Your task to perform on an android device: open app "Airtel Thanks" Image 0: 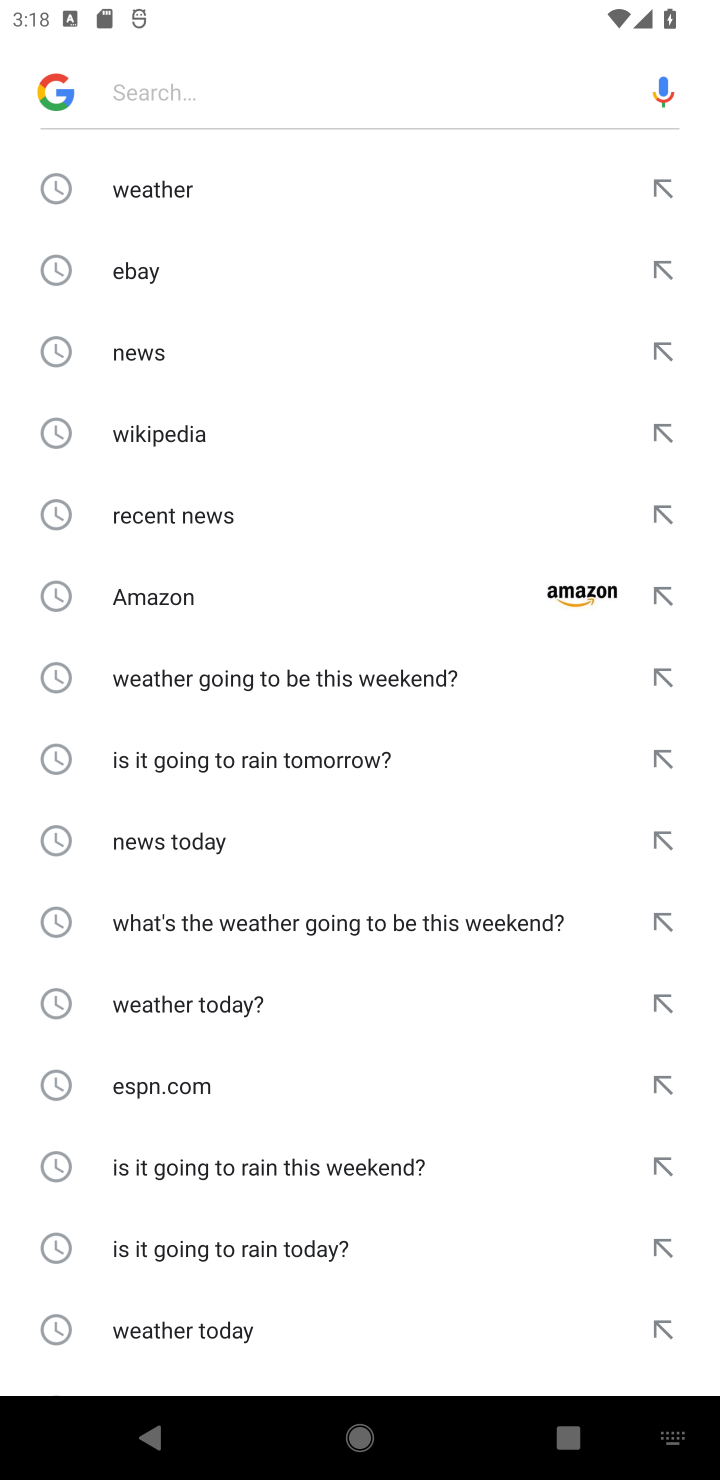
Step 0: press home button
Your task to perform on an android device: open app "Airtel Thanks" Image 1: 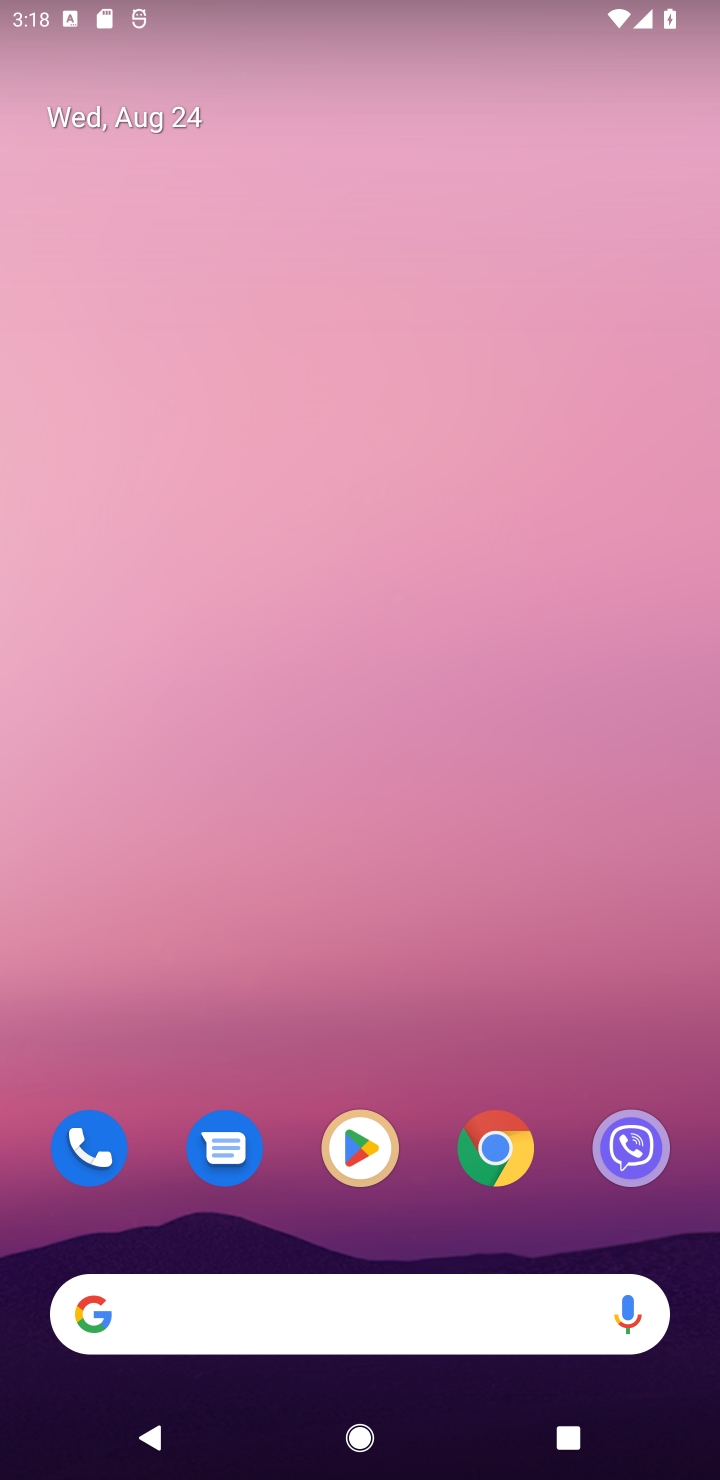
Step 1: click (343, 1126)
Your task to perform on an android device: open app "Airtel Thanks" Image 2: 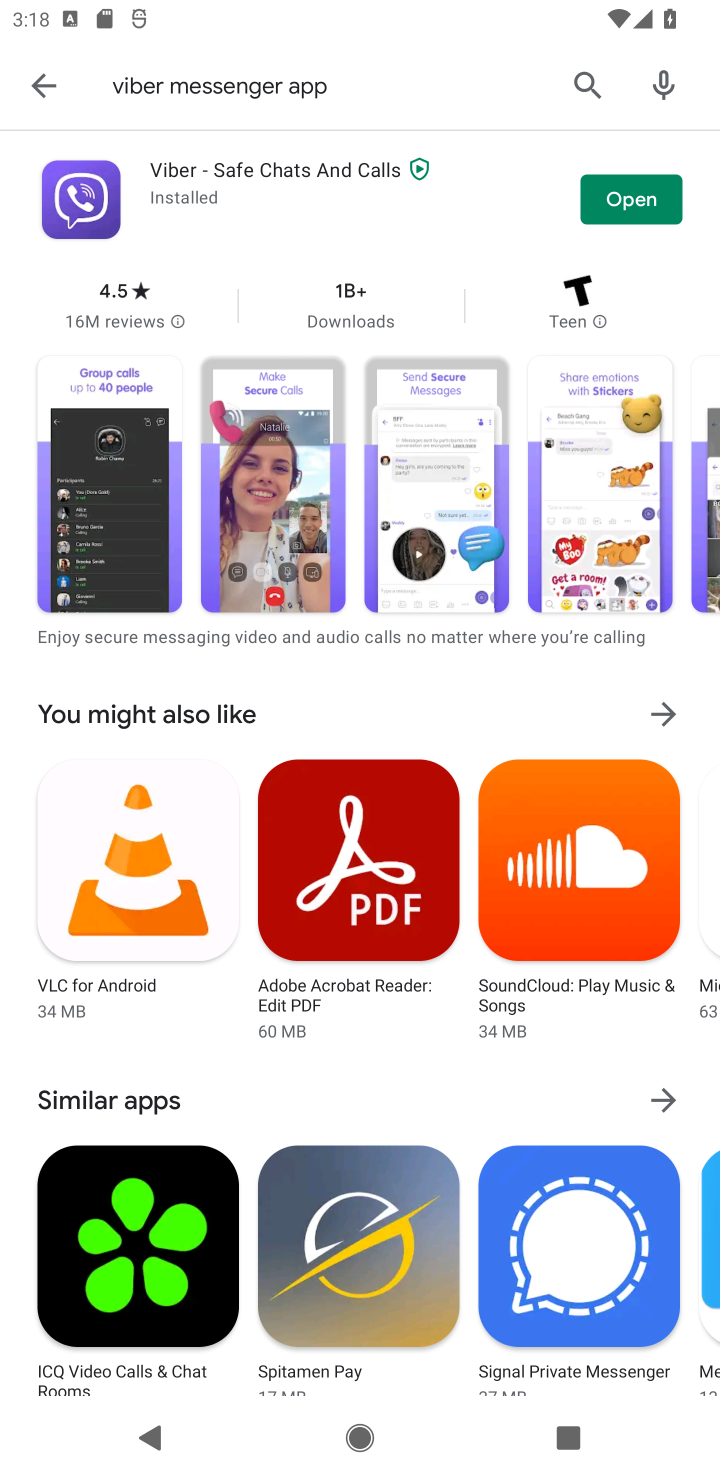
Step 2: click (42, 82)
Your task to perform on an android device: open app "Airtel Thanks" Image 3: 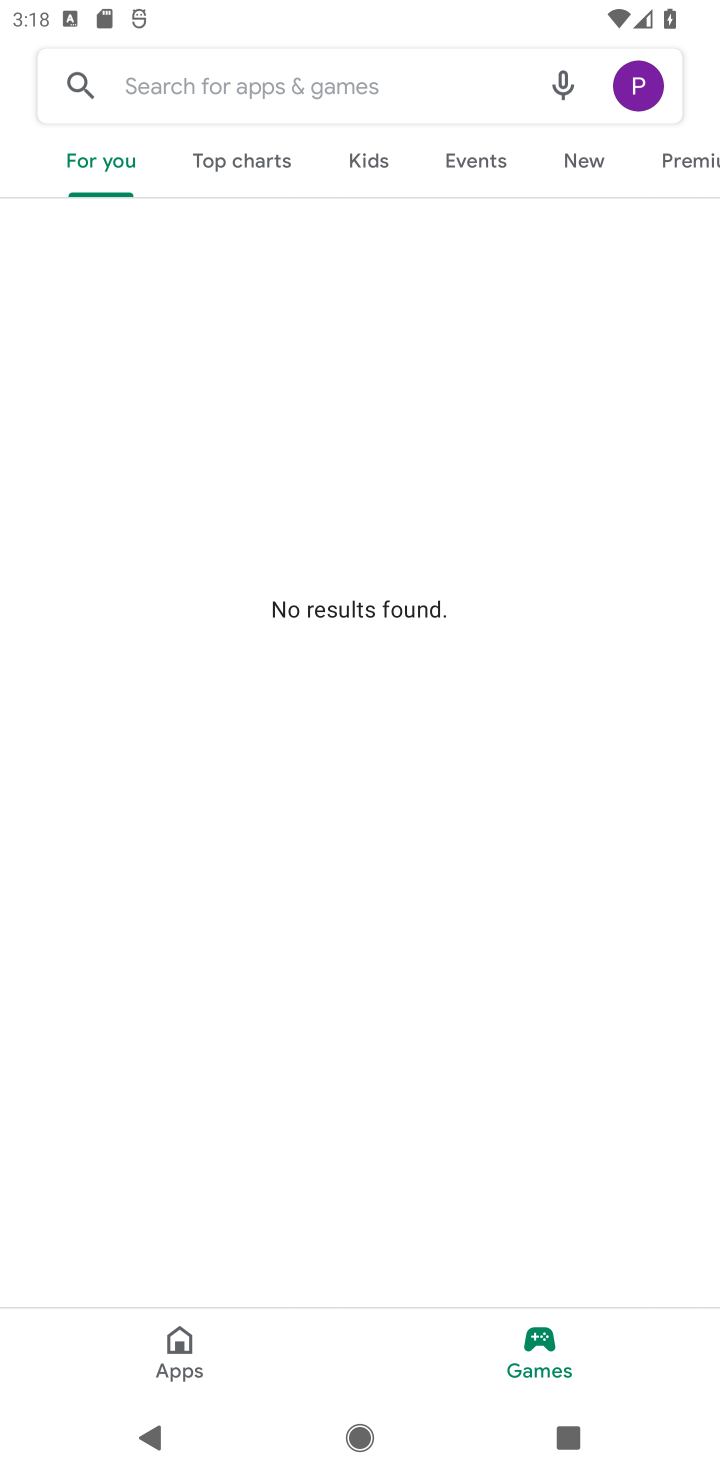
Step 3: click (281, 67)
Your task to perform on an android device: open app "Airtel Thanks" Image 4: 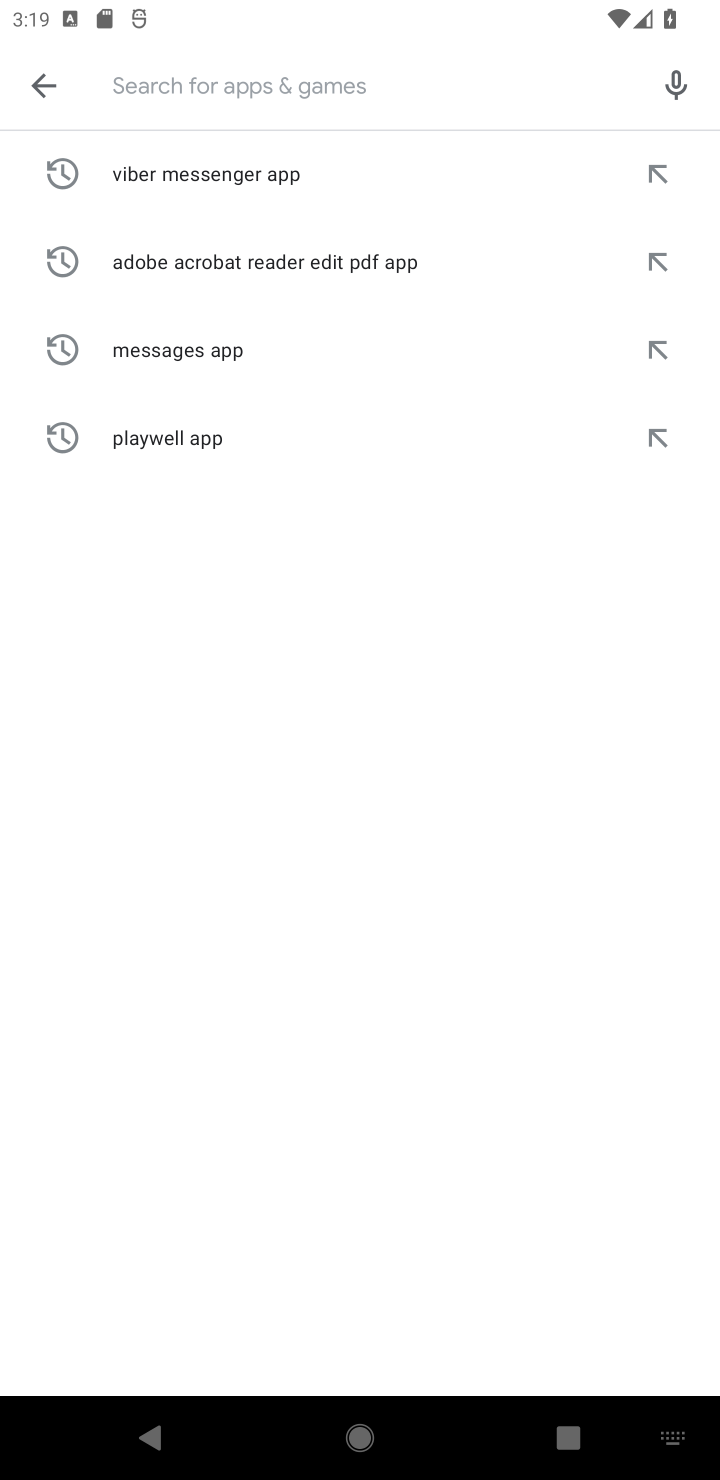
Step 4: type "Airtel Thanks "
Your task to perform on an android device: open app "Airtel Thanks" Image 5: 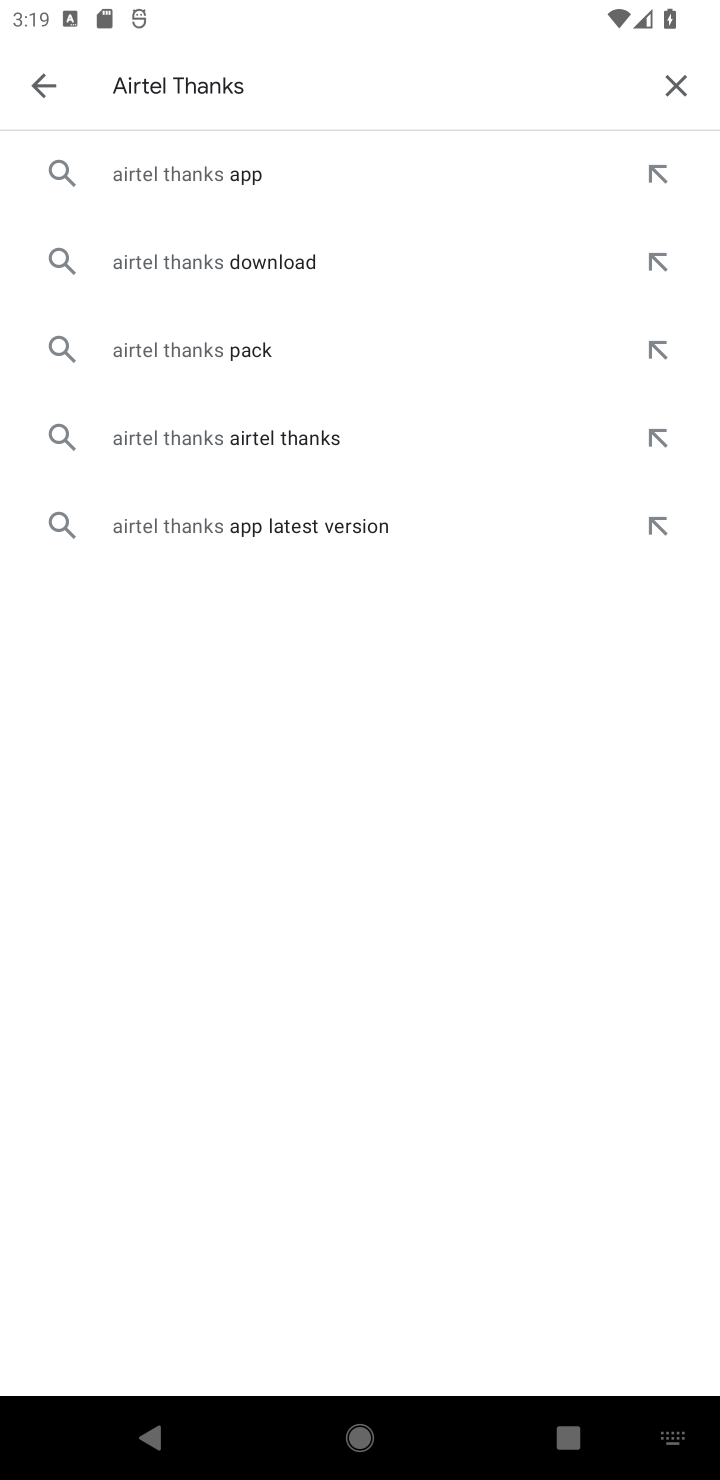
Step 5: click (183, 177)
Your task to perform on an android device: open app "Airtel Thanks" Image 6: 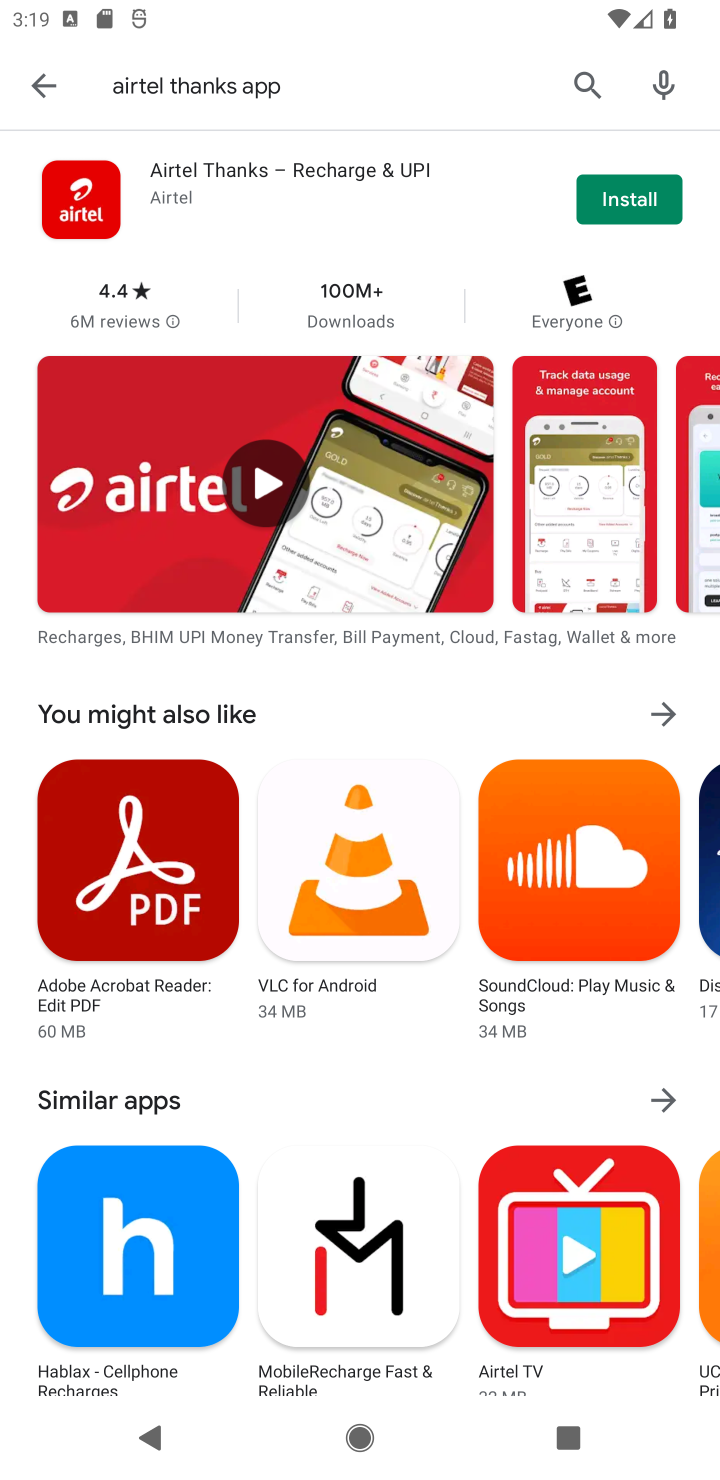
Step 6: click (635, 202)
Your task to perform on an android device: open app "Airtel Thanks" Image 7: 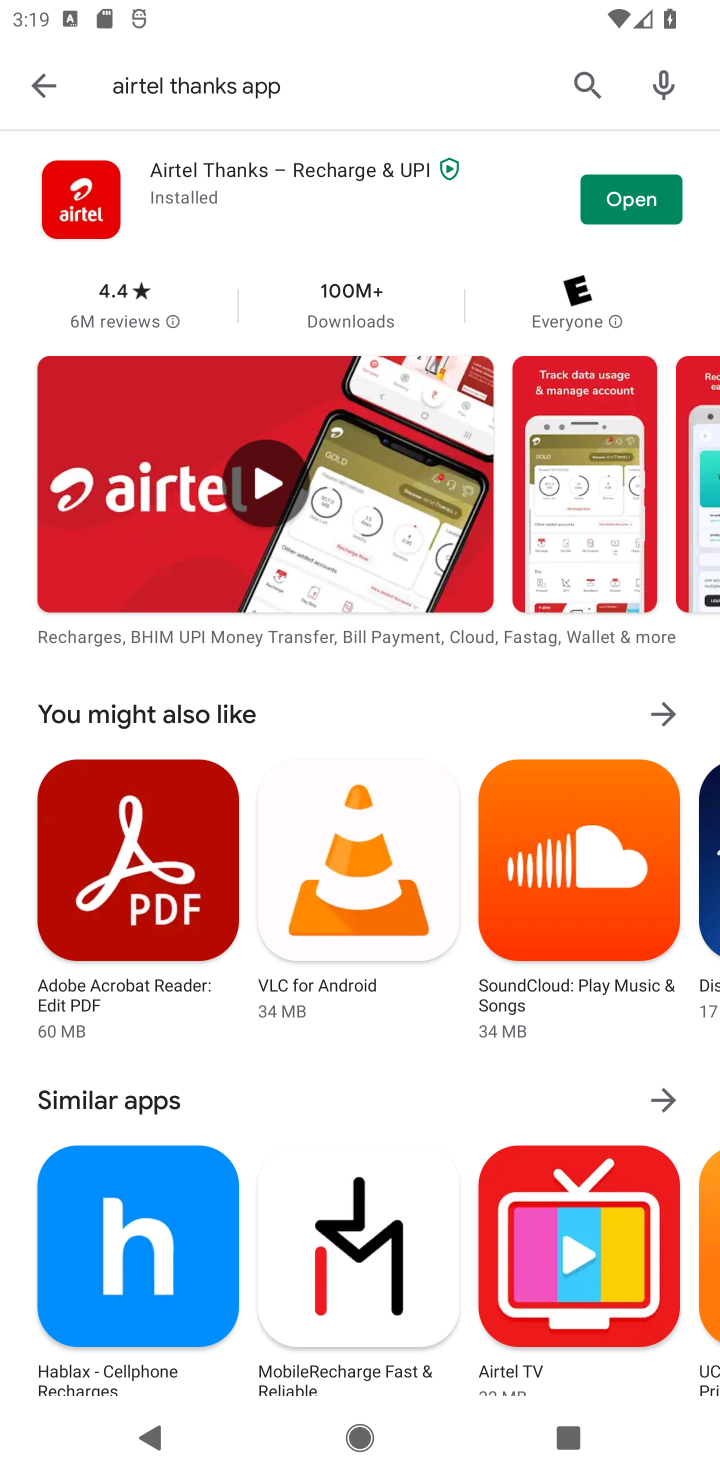
Step 7: click (613, 192)
Your task to perform on an android device: open app "Airtel Thanks" Image 8: 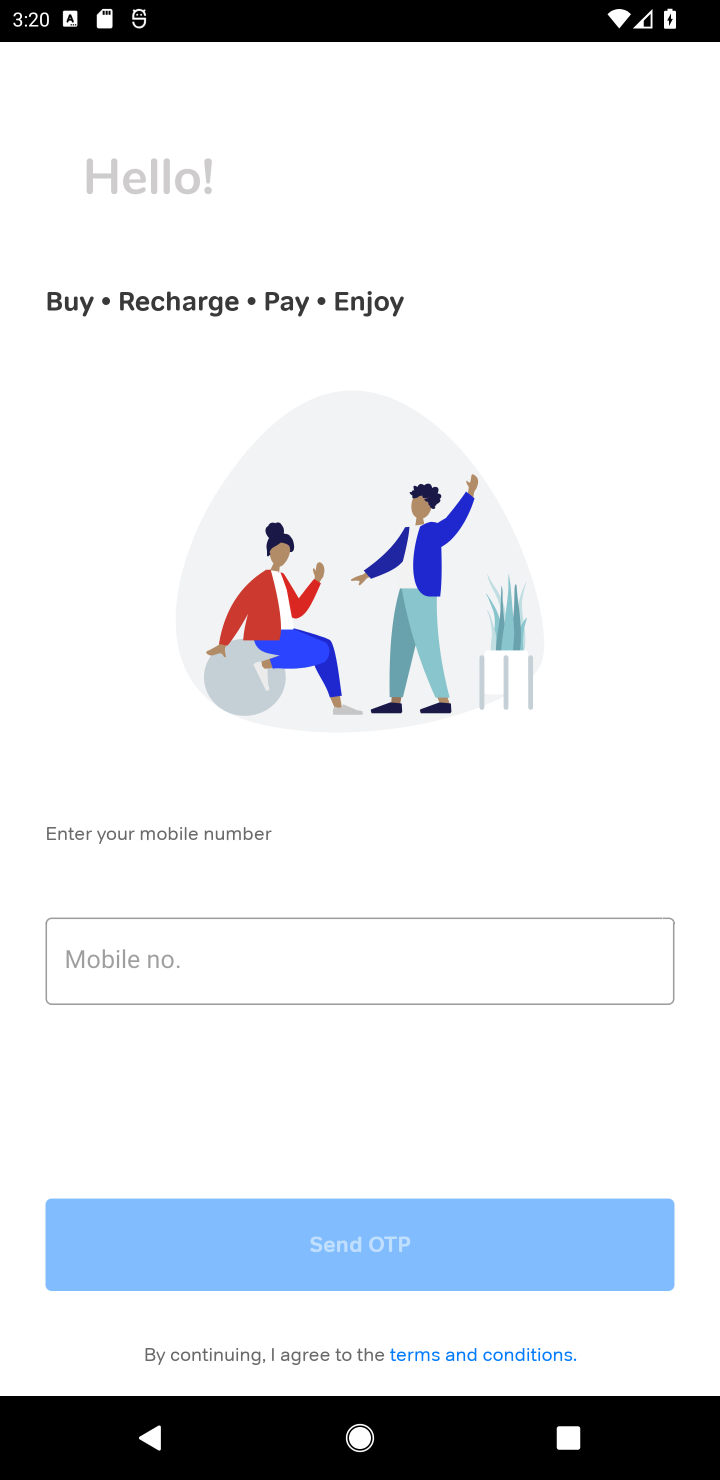
Step 8: task complete